Your task to perform on an android device: turn on notifications settings in the gmail app Image 0: 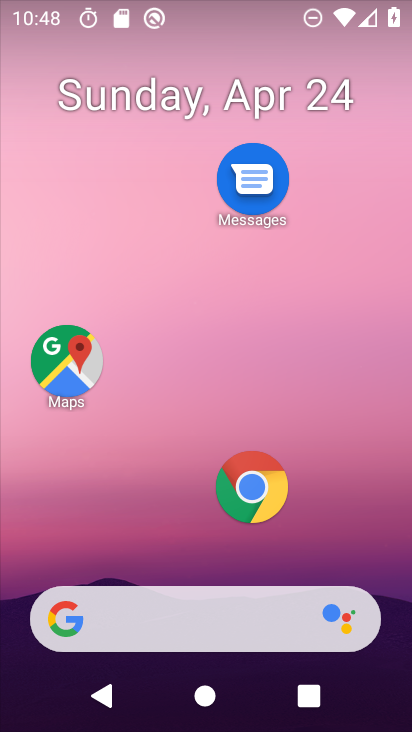
Step 0: drag from (192, 531) to (337, 3)
Your task to perform on an android device: turn on notifications settings in the gmail app Image 1: 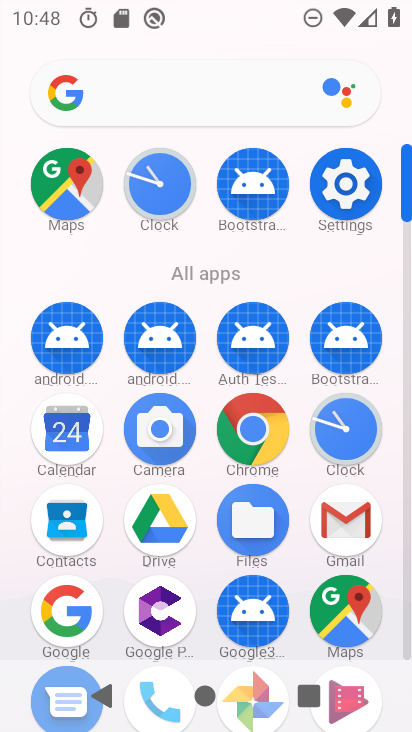
Step 1: click (341, 520)
Your task to perform on an android device: turn on notifications settings in the gmail app Image 2: 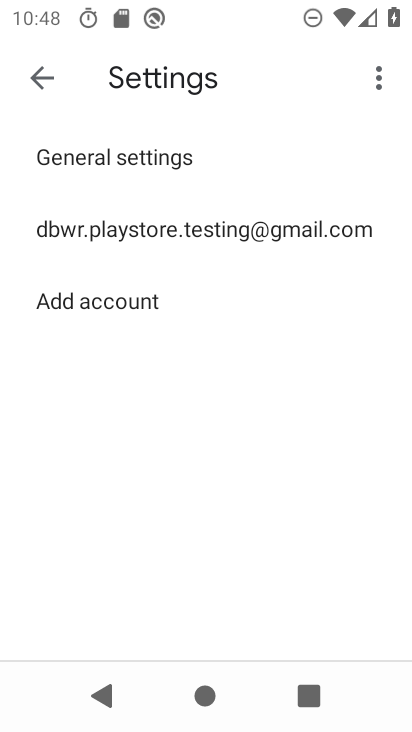
Step 2: click (146, 168)
Your task to perform on an android device: turn on notifications settings in the gmail app Image 3: 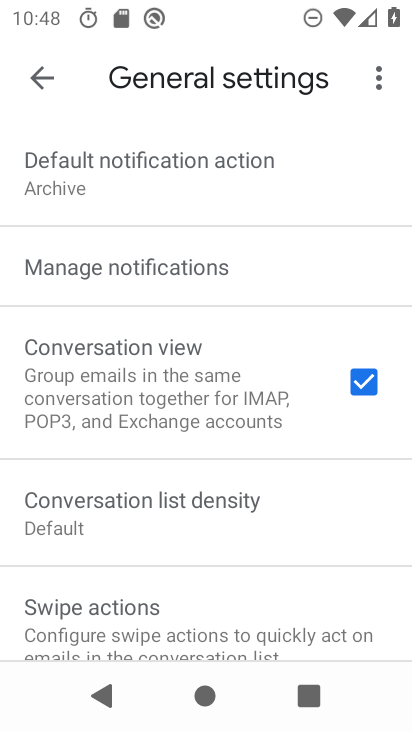
Step 3: click (123, 270)
Your task to perform on an android device: turn on notifications settings in the gmail app Image 4: 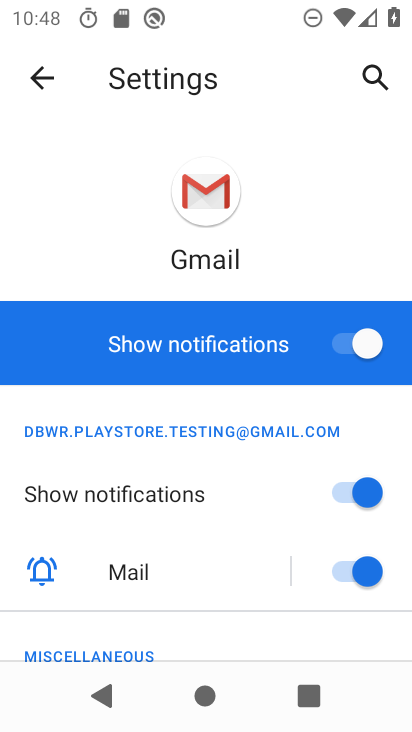
Step 4: task complete